Your task to perform on an android device: What's on my calendar tomorrow? Image 0: 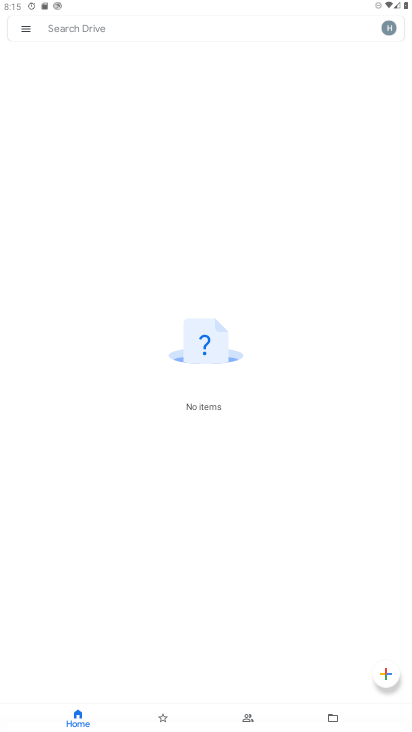
Step 0: press home button
Your task to perform on an android device: What's on my calendar tomorrow? Image 1: 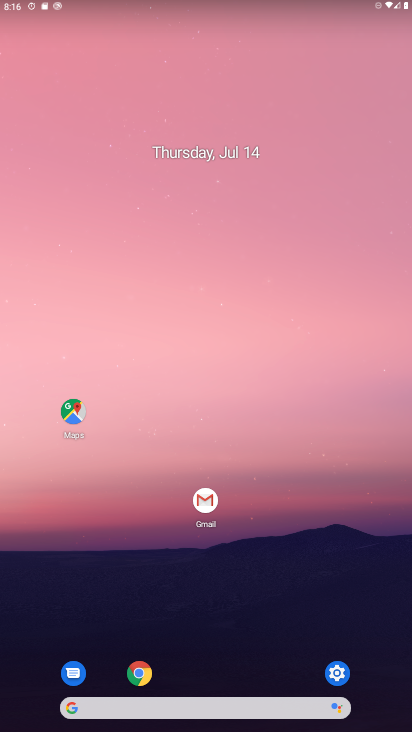
Step 1: click (215, 698)
Your task to perform on an android device: What's on my calendar tomorrow? Image 2: 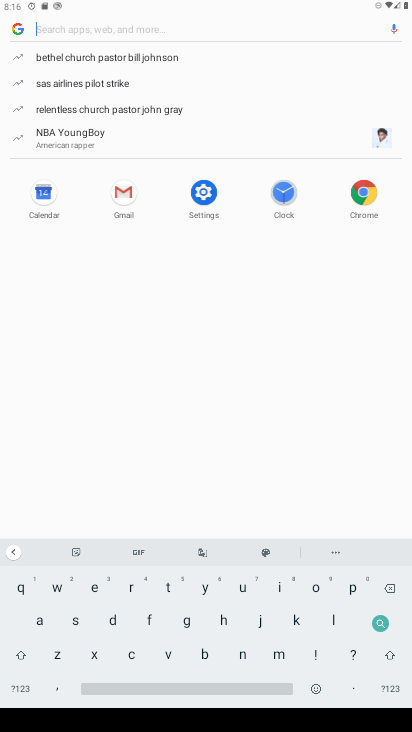
Step 2: click (41, 190)
Your task to perform on an android device: What's on my calendar tomorrow? Image 3: 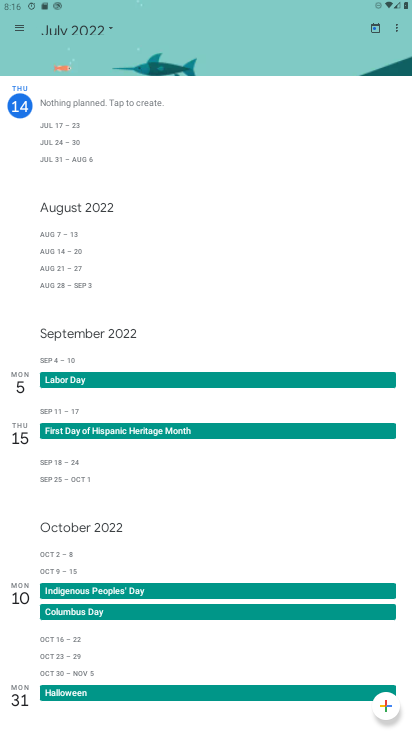
Step 3: click (30, 434)
Your task to perform on an android device: What's on my calendar tomorrow? Image 4: 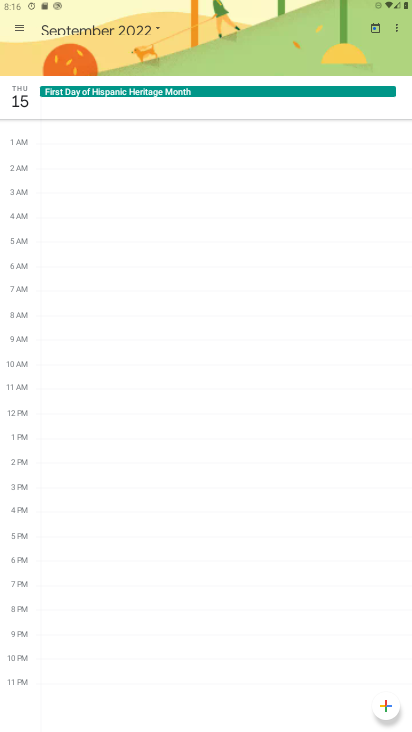
Step 4: task complete